Your task to perform on an android device: Show me productivity apps on the Play Store Image 0: 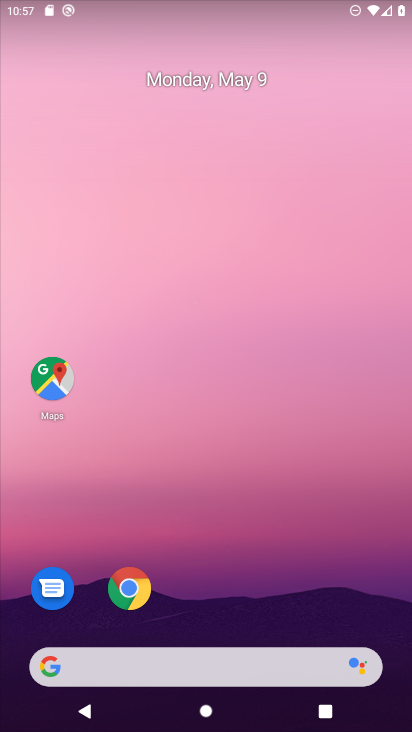
Step 0: drag from (275, 584) to (228, 7)
Your task to perform on an android device: Show me productivity apps on the Play Store Image 1: 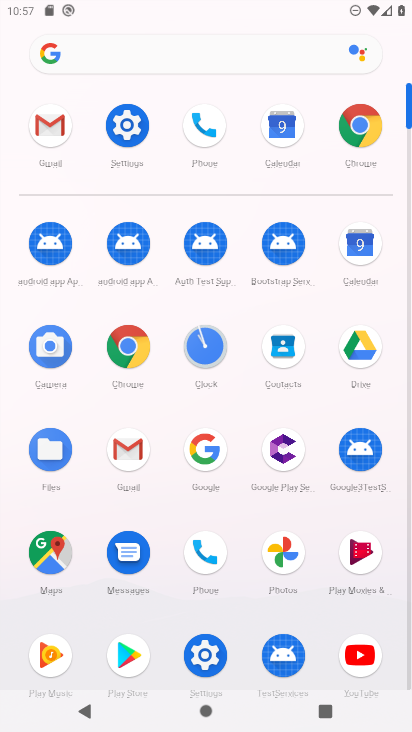
Step 1: click (121, 667)
Your task to perform on an android device: Show me productivity apps on the Play Store Image 2: 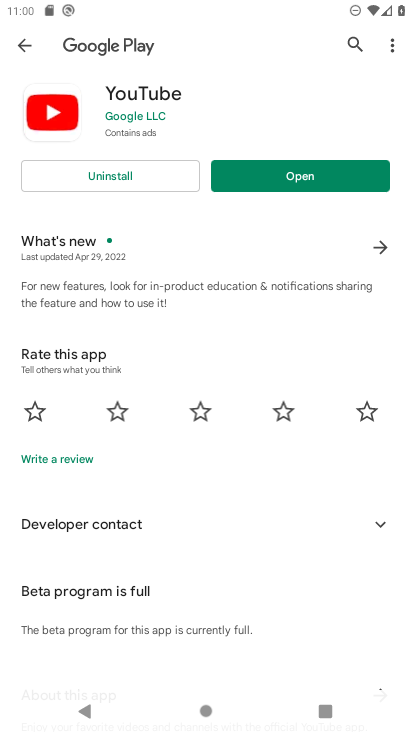
Step 2: press home button
Your task to perform on an android device: Show me productivity apps on the Play Store Image 3: 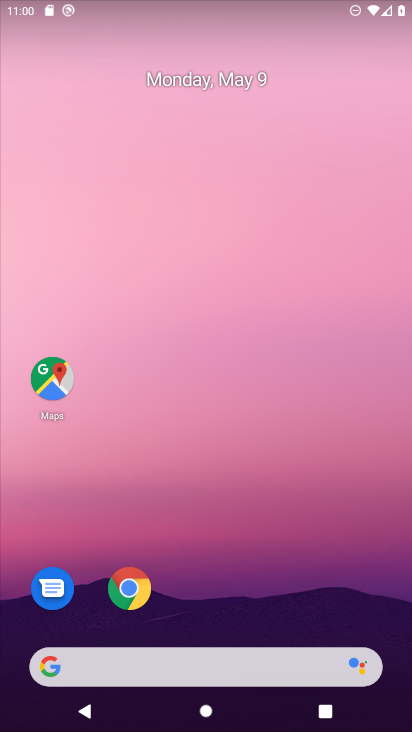
Step 3: drag from (252, 583) to (219, 247)
Your task to perform on an android device: Show me productivity apps on the Play Store Image 4: 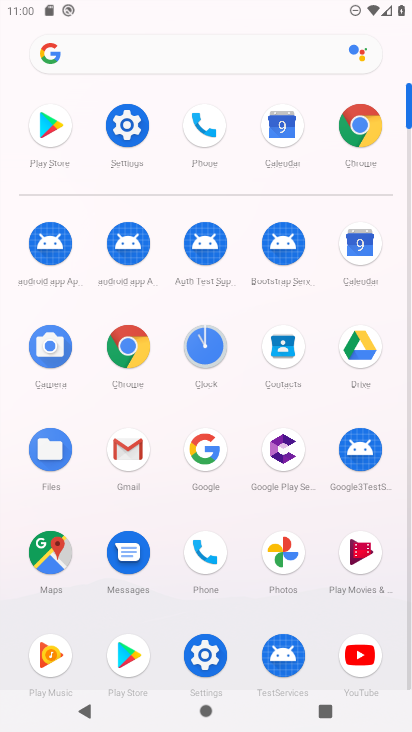
Step 4: click (134, 652)
Your task to perform on an android device: Show me productivity apps on the Play Store Image 5: 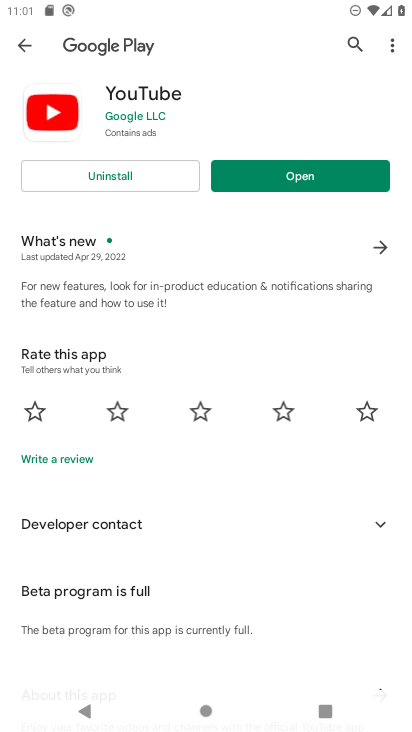
Step 5: click (19, 46)
Your task to perform on an android device: Show me productivity apps on the Play Store Image 6: 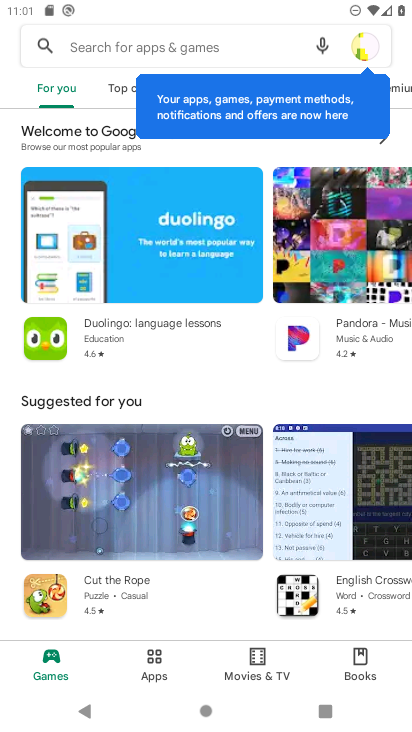
Step 6: click (143, 680)
Your task to perform on an android device: Show me productivity apps on the Play Store Image 7: 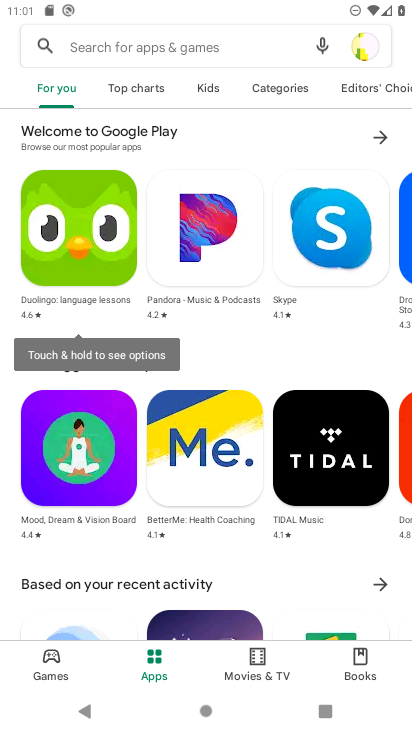
Step 7: click (139, 79)
Your task to perform on an android device: Show me productivity apps on the Play Store Image 8: 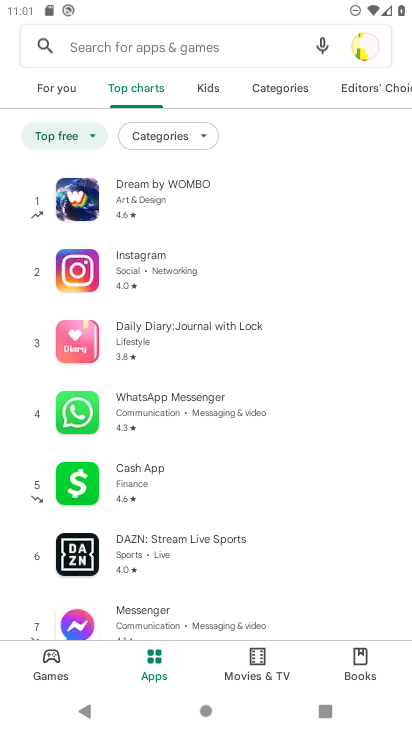
Step 8: click (148, 130)
Your task to perform on an android device: Show me productivity apps on the Play Store Image 9: 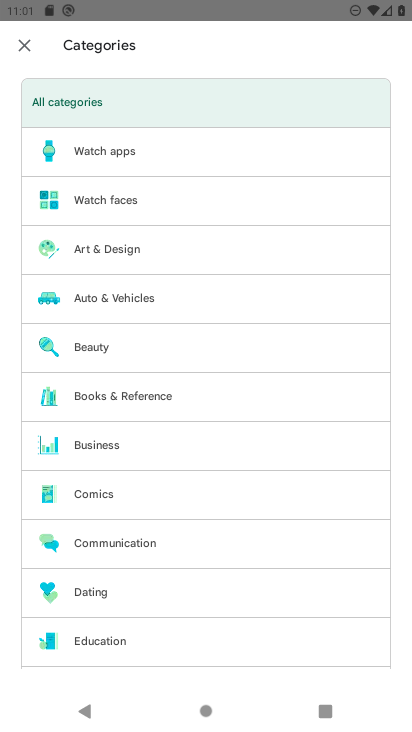
Step 9: drag from (176, 606) to (176, 266)
Your task to perform on an android device: Show me productivity apps on the Play Store Image 10: 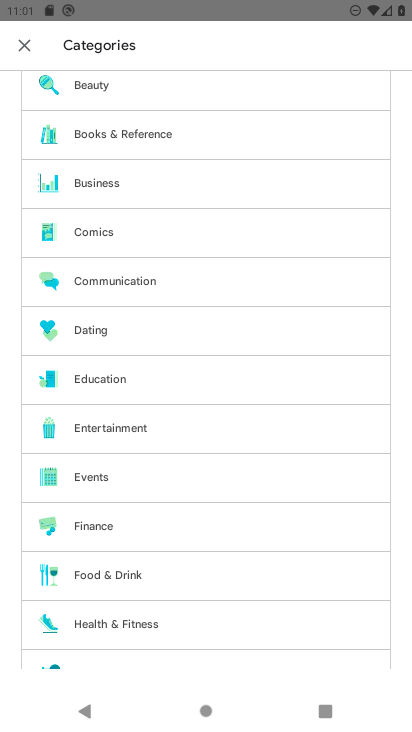
Step 10: drag from (149, 621) to (166, 547)
Your task to perform on an android device: Show me productivity apps on the Play Store Image 11: 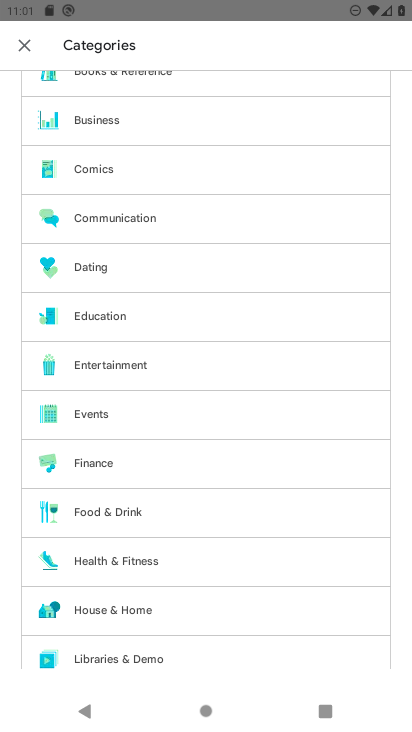
Step 11: drag from (151, 646) to (153, 509)
Your task to perform on an android device: Show me productivity apps on the Play Store Image 12: 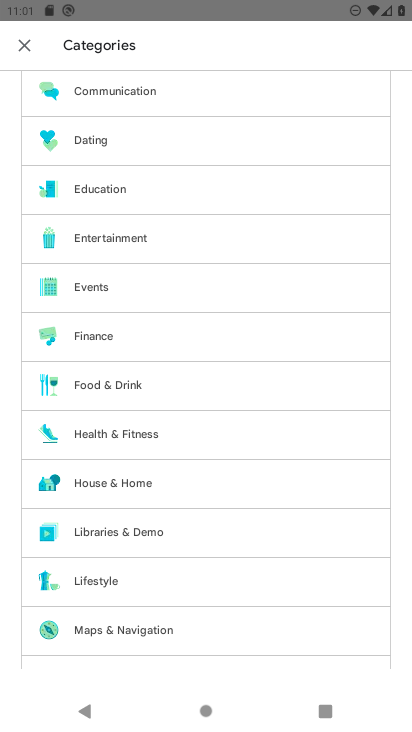
Step 12: drag from (134, 641) to (111, 23)
Your task to perform on an android device: Show me productivity apps on the Play Store Image 13: 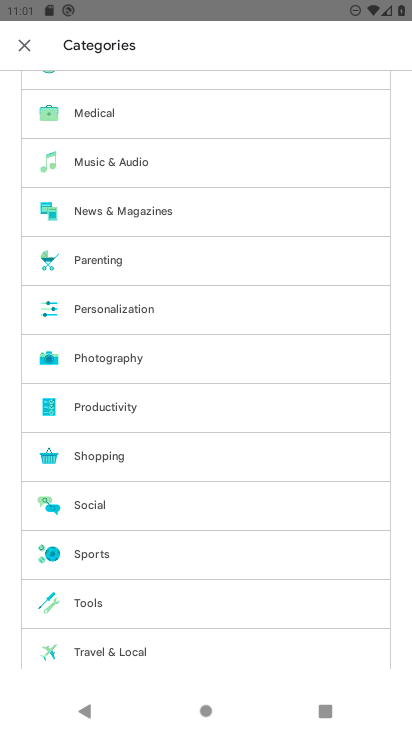
Step 13: click (169, 421)
Your task to perform on an android device: Show me productivity apps on the Play Store Image 14: 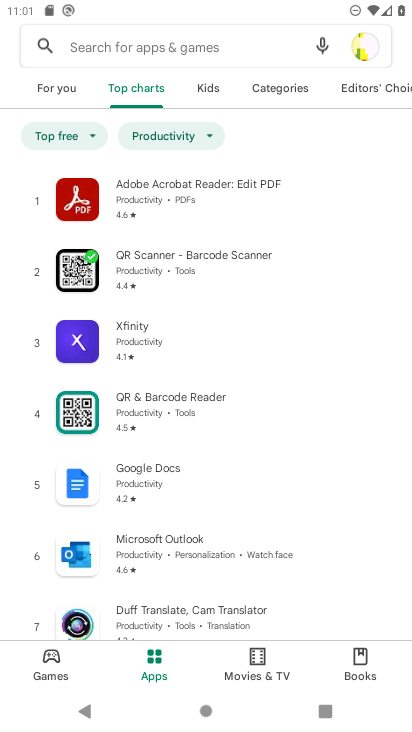
Step 14: task complete